Your task to perform on an android device: Do I have any events today? Image 0: 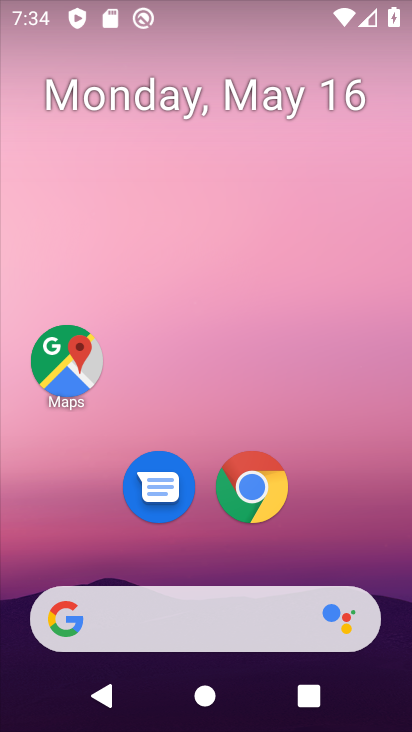
Step 0: drag from (314, 492) to (331, 70)
Your task to perform on an android device: Do I have any events today? Image 1: 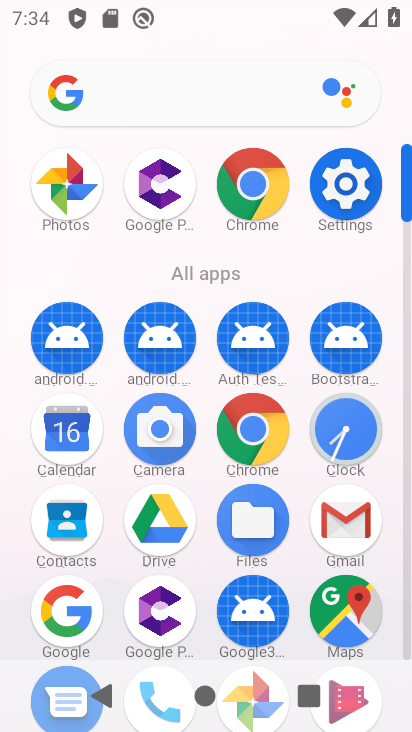
Step 1: click (78, 428)
Your task to perform on an android device: Do I have any events today? Image 2: 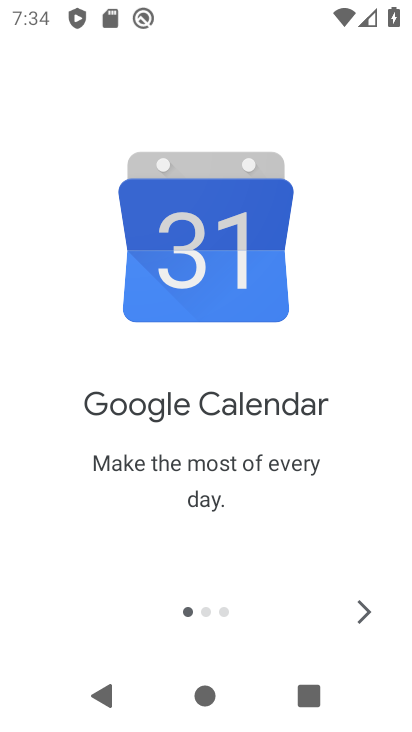
Step 2: click (361, 611)
Your task to perform on an android device: Do I have any events today? Image 3: 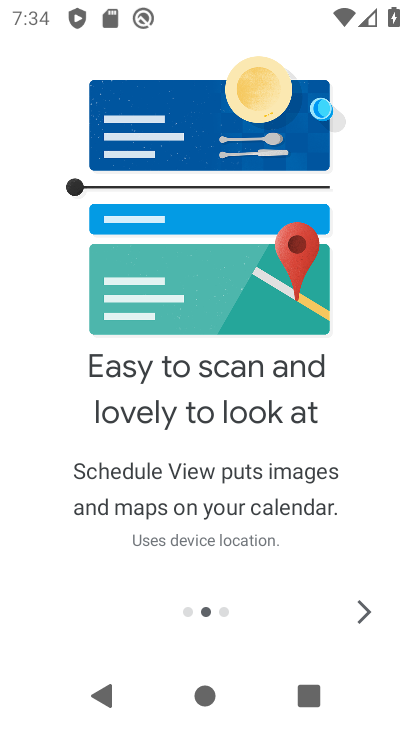
Step 3: click (361, 610)
Your task to perform on an android device: Do I have any events today? Image 4: 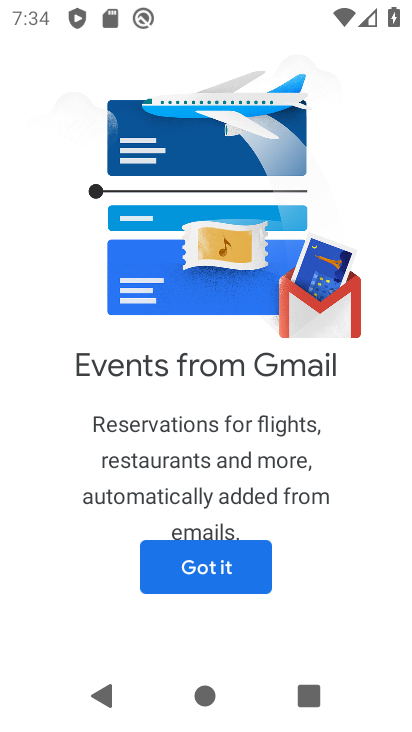
Step 4: click (259, 557)
Your task to perform on an android device: Do I have any events today? Image 5: 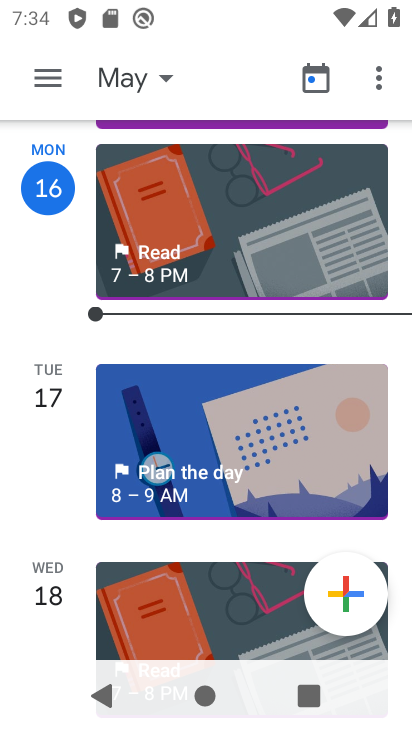
Step 5: task complete